Your task to perform on an android device: toggle pop-ups in chrome Image 0: 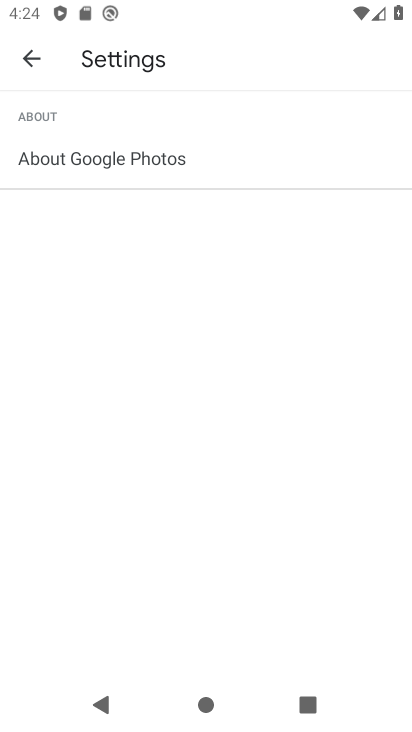
Step 0: press back button
Your task to perform on an android device: toggle pop-ups in chrome Image 1: 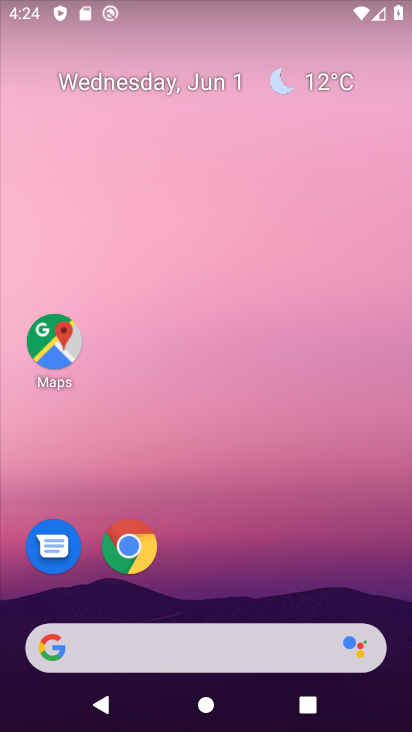
Step 1: drag from (266, 529) to (233, 14)
Your task to perform on an android device: toggle pop-ups in chrome Image 2: 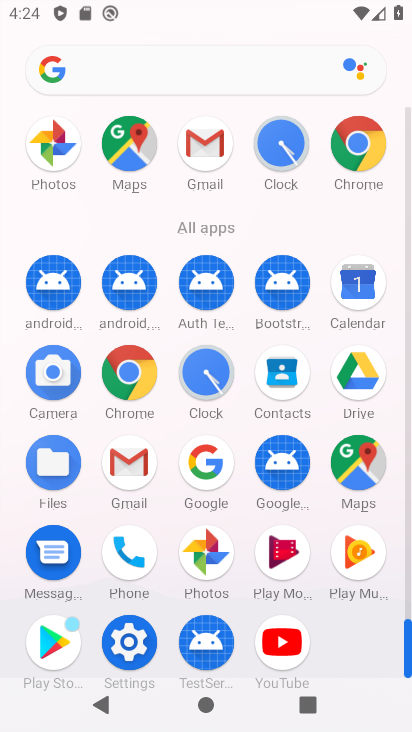
Step 2: drag from (1, 481) to (14, 186)
Your task to perform on an android device: toggle pop-ups in chrome Image 3: 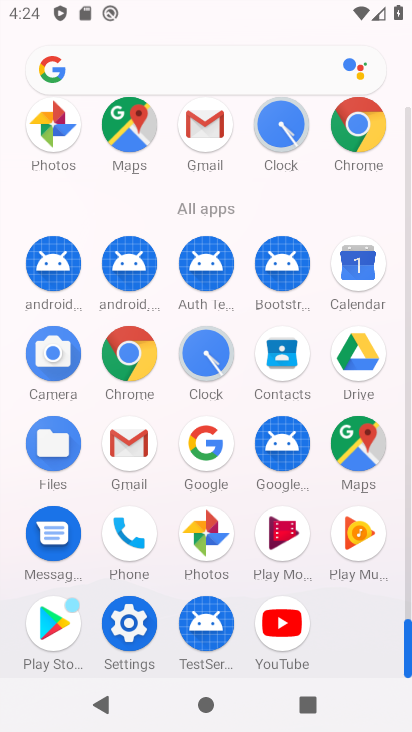
Step 3: drag from (3, 454) to (12, 298)
Your task to perform on an android device: toggle pop-ups in chrome Image 4: 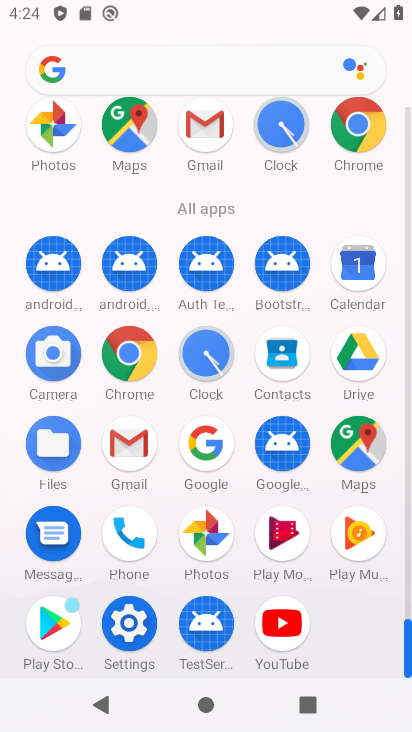
Step 4: click (129, 356)
Your task to perform on an android device: toggle pop-ups in chrome Image 5: 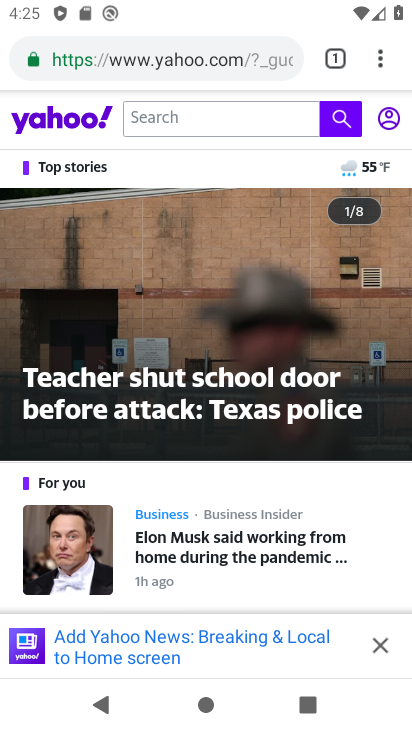
Step 5: drag from (376, 55) to (224, 577)
Your task to perform on an android device: toggle pop-ups in chrome Image 6: 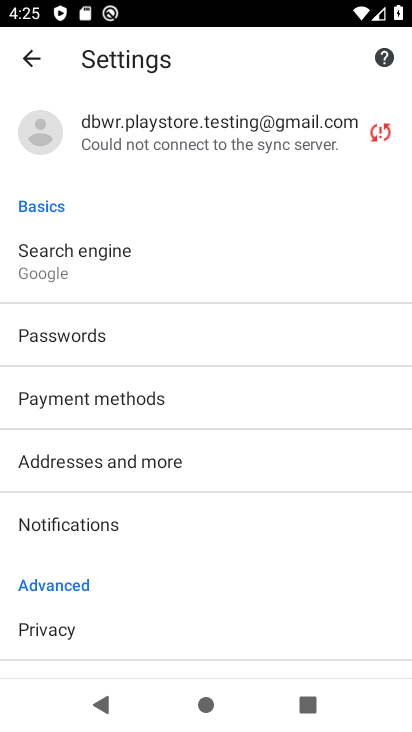
Step 6: drag from (239, 569) to (239, 159)
Your task to perform on an android device: toggle pop-ups in chrome Image 7: 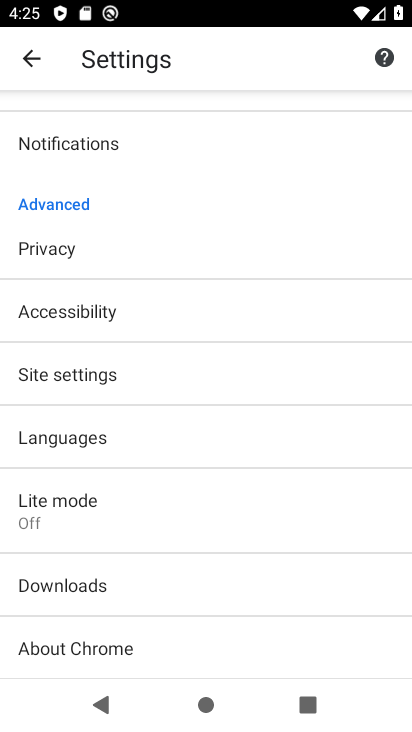
Step 7: drag from (180, 527) to (183, 218)
Your task to perform on an android device: toggle pop-ups in chrome Image 8: 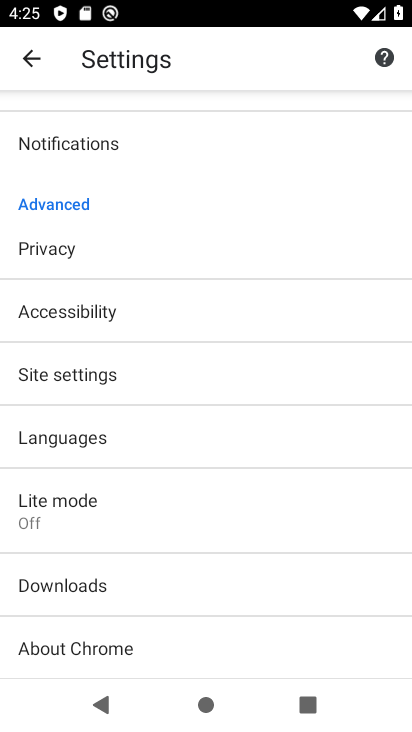
Step 8: click (102, 370)
Your task to perform on an android device: toggle pop-ups in chrome Image 9: 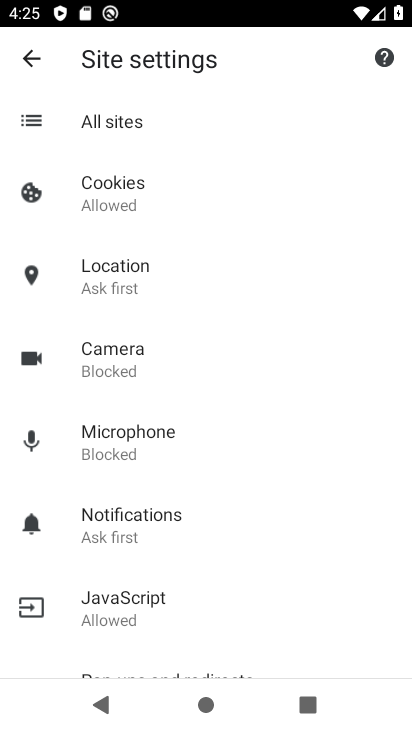
Step 9: drag from (221, 498) to (247, 105)
Your task to perform on an android device: toggle pop-ups in chrome Image 10: 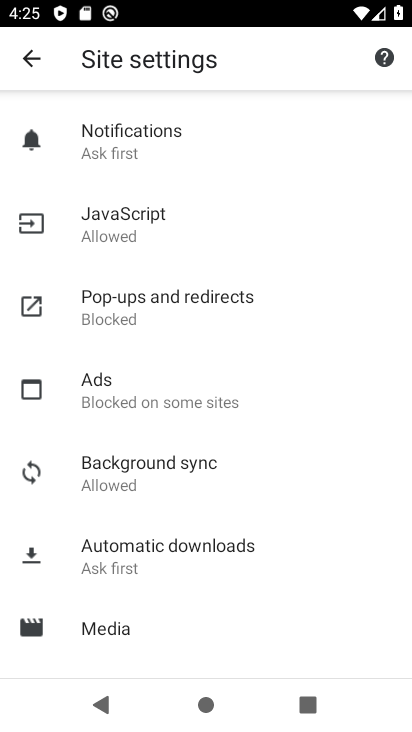
Step 10: click (165, 292)
Your task to perform on an android device: toggle pop-ups in chrome Image 11: 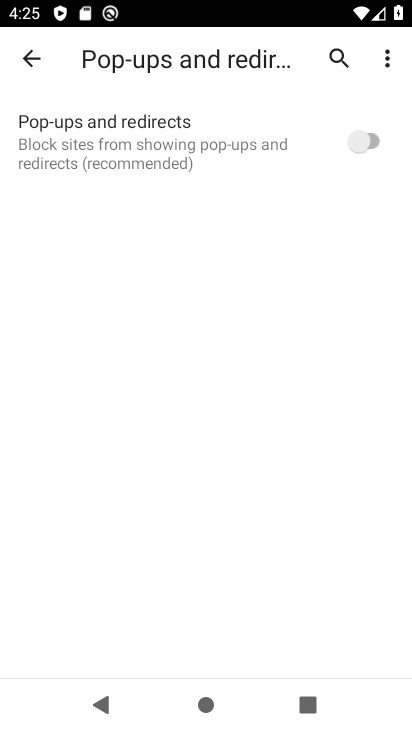
Step 11: click (364, 130)
Your task to perform on an android device: toggle pop-ups in chrome Image 12: 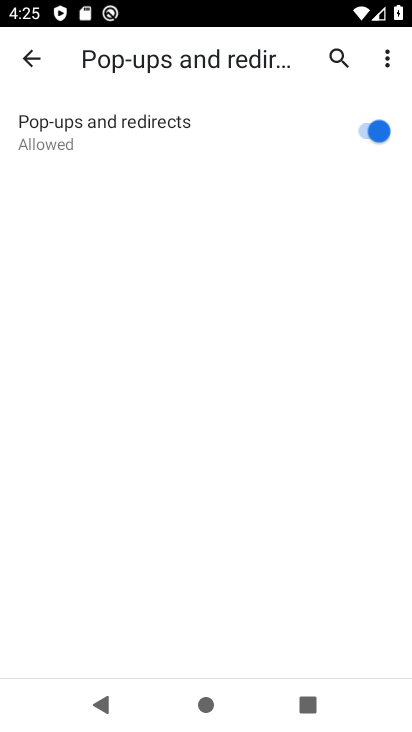
Step 12: task complete